Your task to perform on an android device: turn off airplane mode Image 0: 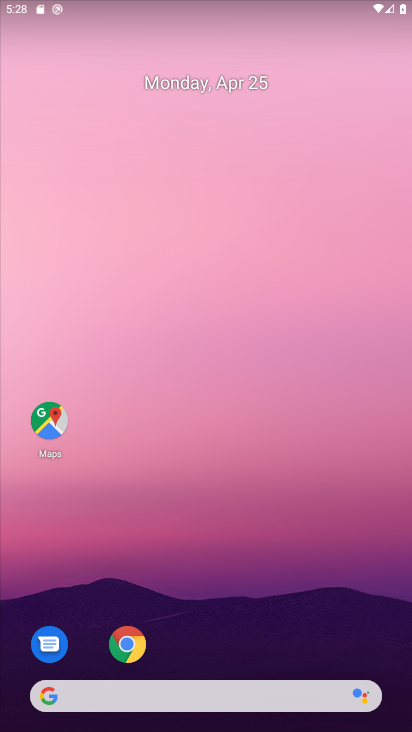
Step 0: click (132, 631)
Your task to perform on an android device: turn off airplane mode Image 1: 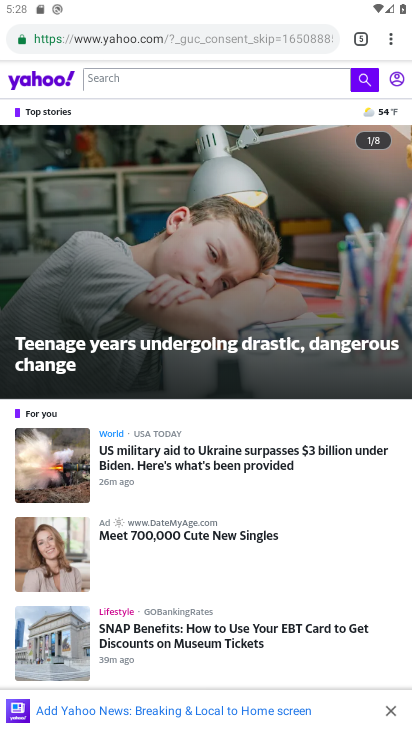
Step 1: press home button
Your task to perform on an android device: turn off airplane mode Image 2: 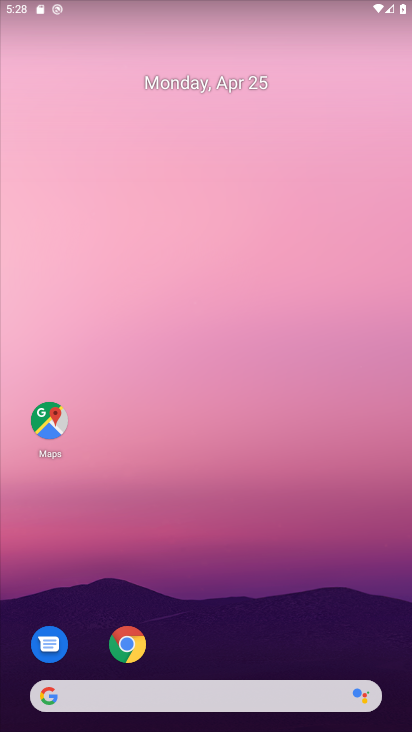
Step 2: drag from (263, 556) to (200, 1)
Your task to perform on an android device: turn off airplane mode Image 3: 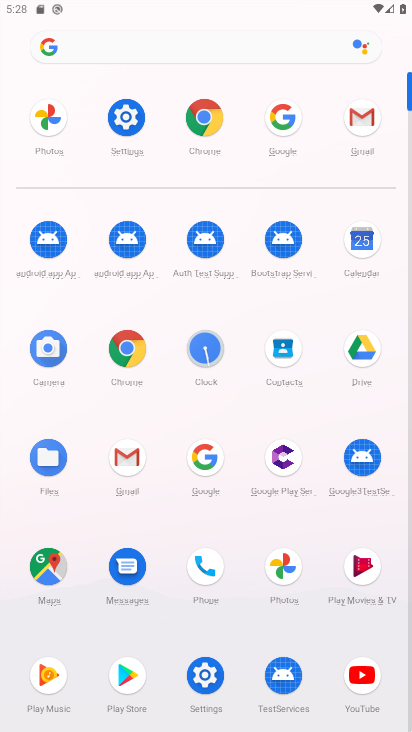
Step 3: click (126, 122)
Your task to perform on an android device: turn off airplane mode Image 4: 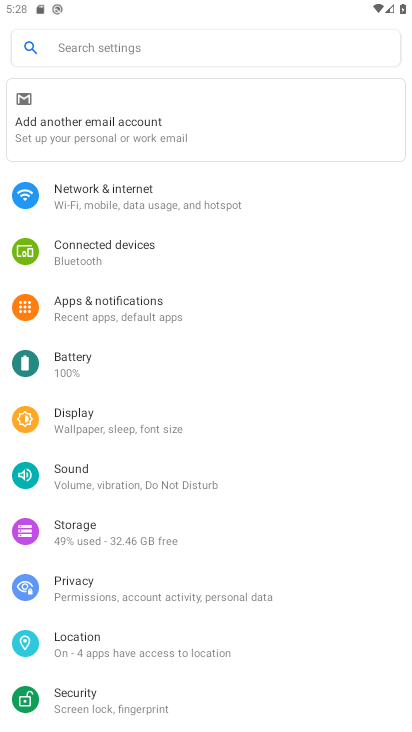
Step 4: click (146, 204)
Your task to perform on an android device: turn off airplane mode Image 5: 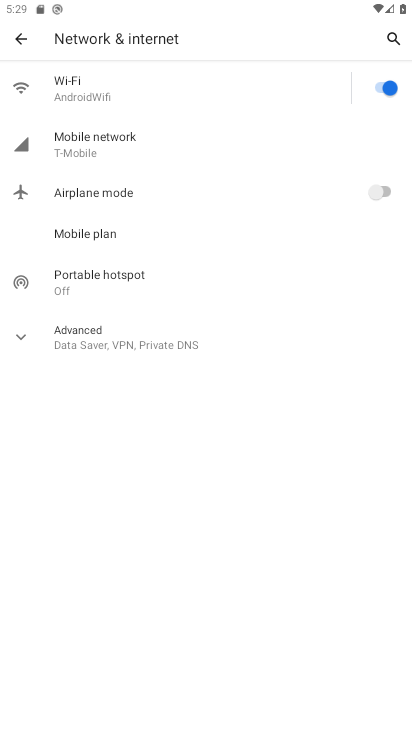
Step 5: task complete